Your task to perform on an android device: set the stopwatch Image 0: 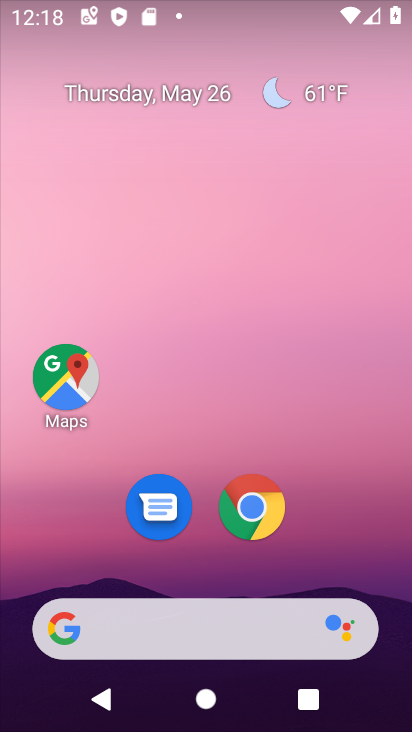
Step 0: drag from (344, 554) to (319, 271)
Your task to perform on an android device: set the stopwatch Image 1: 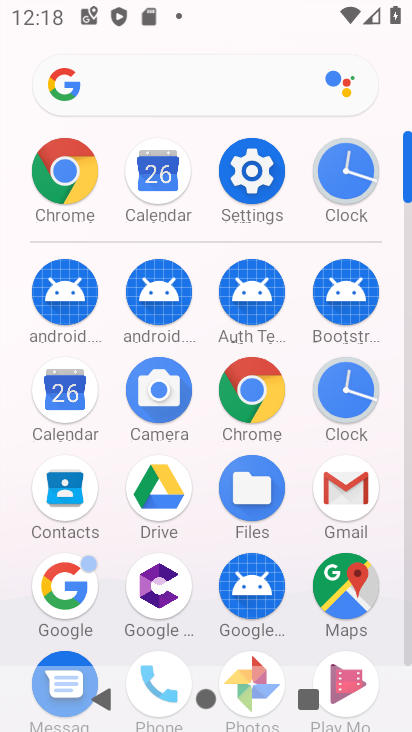
Step 1: click (381, 189)
Your task to perform on an android device: set the stopwatch Image 2: 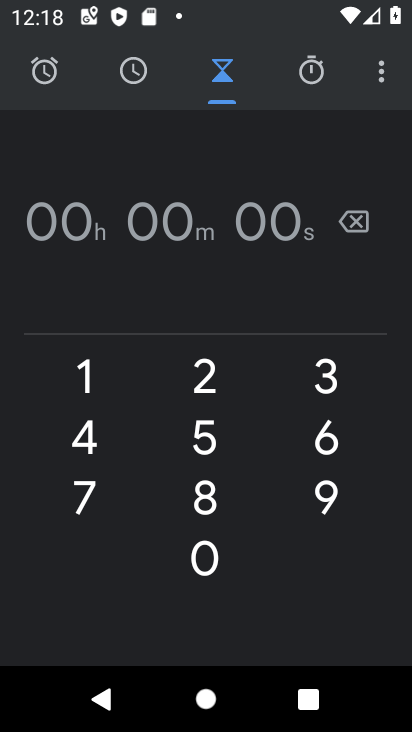
Step 2: click (291, 91)
Your task to perform on an android device: set the stopwatch Image 3: 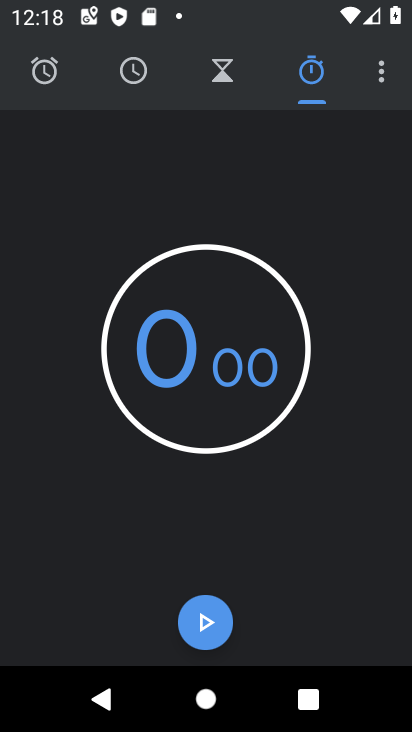
Step 3: task complete